Your task to perform on an android device: remove spam from my inbox in the gmail app Image 0: 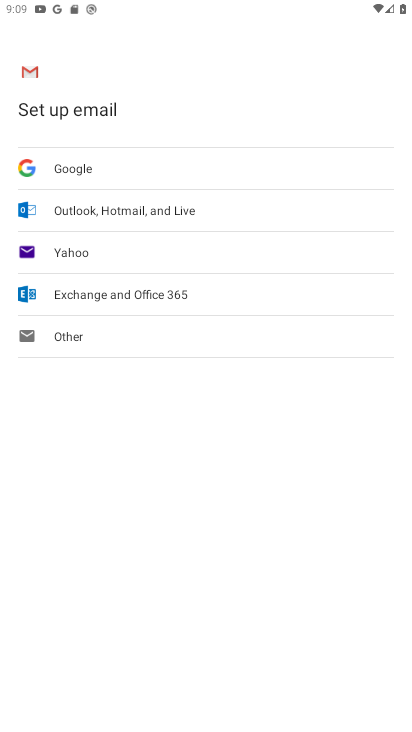
Step 0: press home button
Your task to perform on an android device: remove spam from my inbox in the gmail app Image 1: 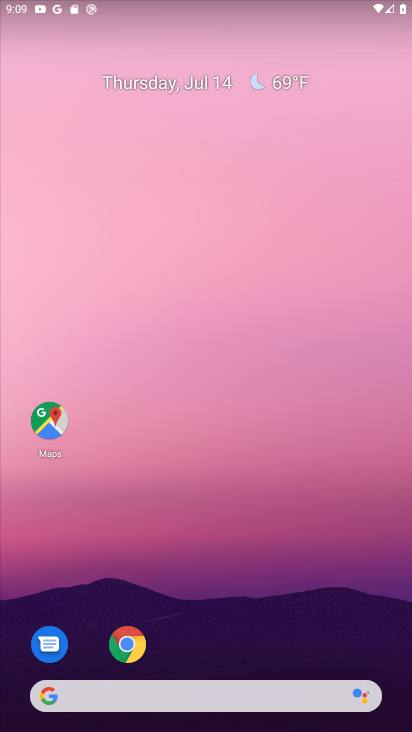
Step 1: drag from (168, 669) to (281, 63)
Your task to perform on an android device: remove spam from my inbox in the gmail app Image 2: 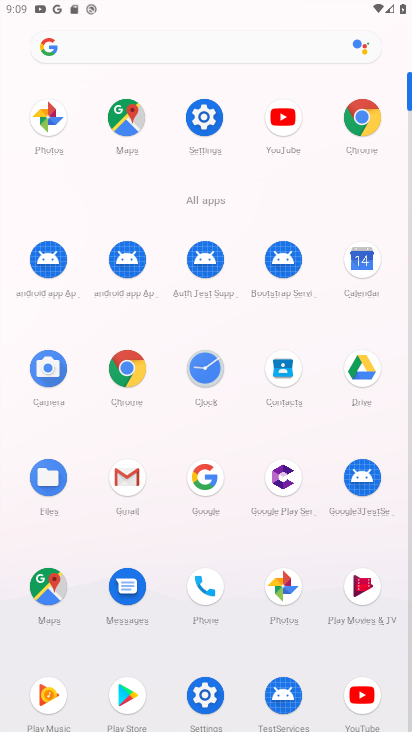
Step 2: click (189, 101)
Your task to perform on an android device: remove spam from my inbox in the gmail app Image 3: 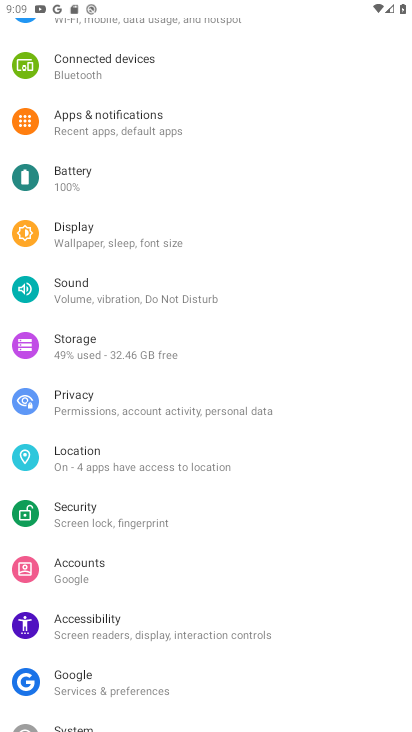
Step 3: click (110, 631)
Your task to perform on an android device: remove spam from my inbox in the gmail app Image 4: 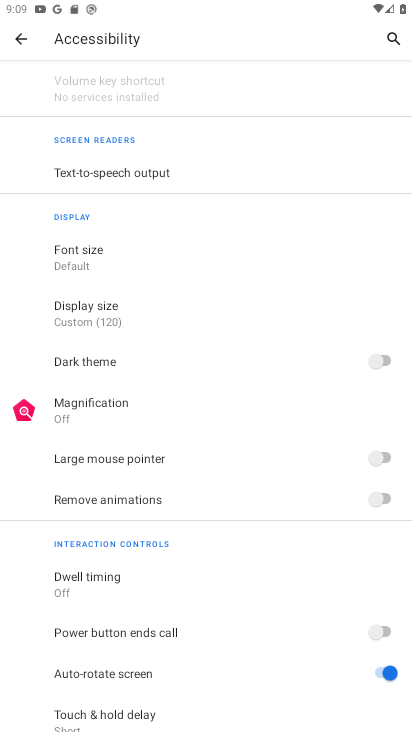
Step 4: task complete